Your task to perform on an android device: Show me some nice wallpapers for my phone Image 0: 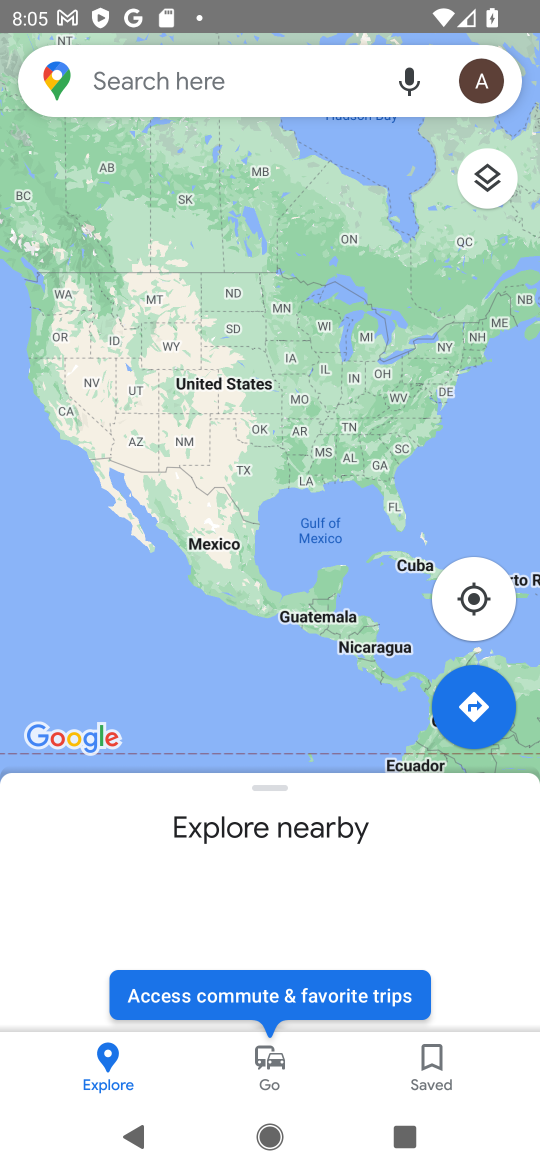
Step 0: press home button
Your task to perform on an android device: Show me some nice wallpapers for my phone Image 1: 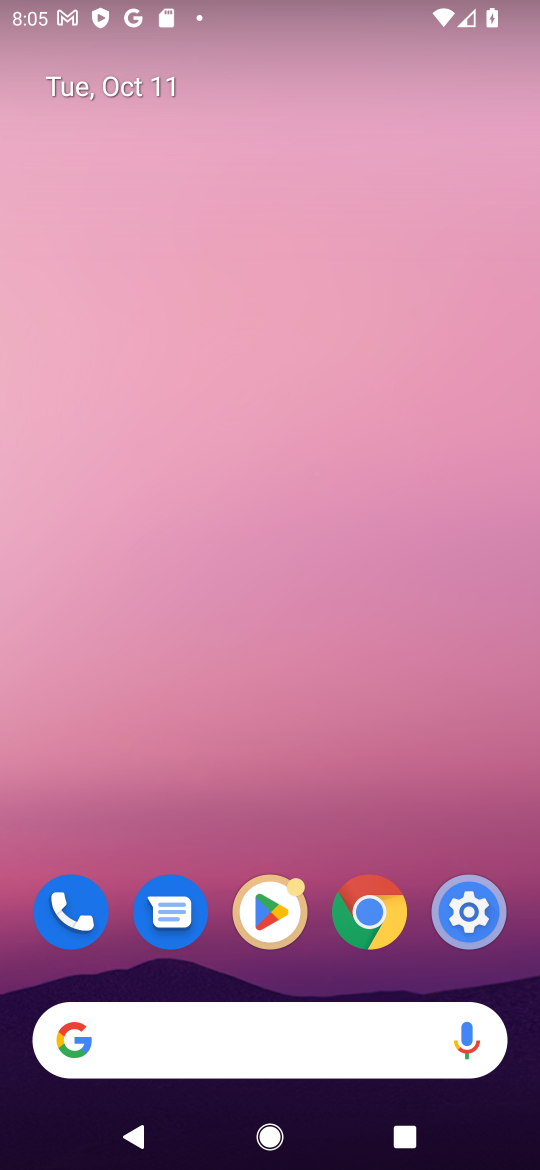
Step 1: click (377, 915)
Your task to perform on an android device: Show me some nice wallpapers for my phone Image 2: 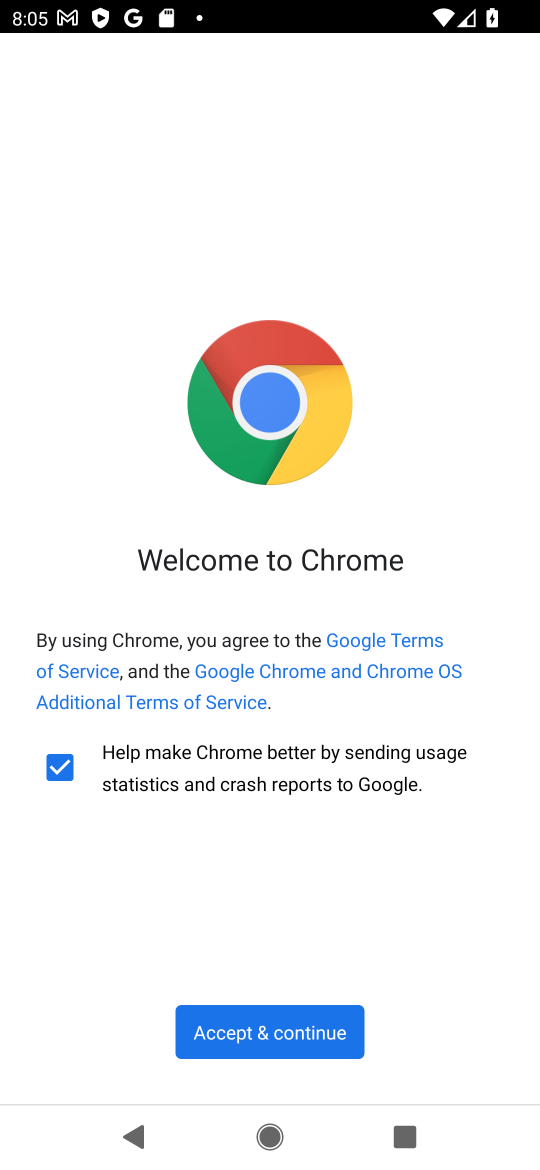
Step 2: click (260, 1036)
Your task to perform on an android device: Show me some nice wallpapers for my phone Image 3: 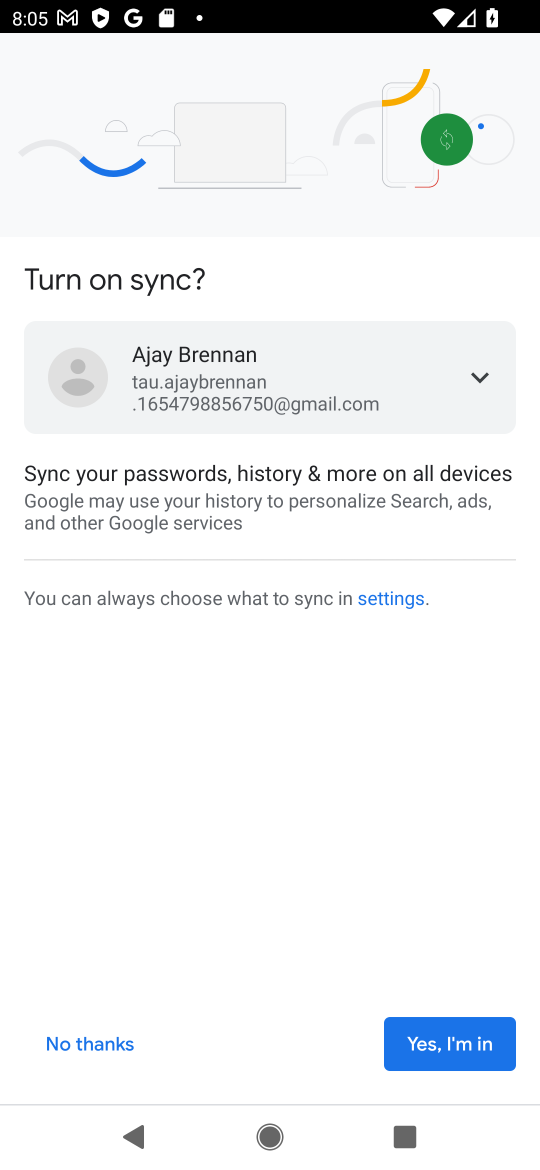
Step 3: click (78, 1040)
Your task to perform on an android device: Show me some nice wallpapers for my phone Image 4: 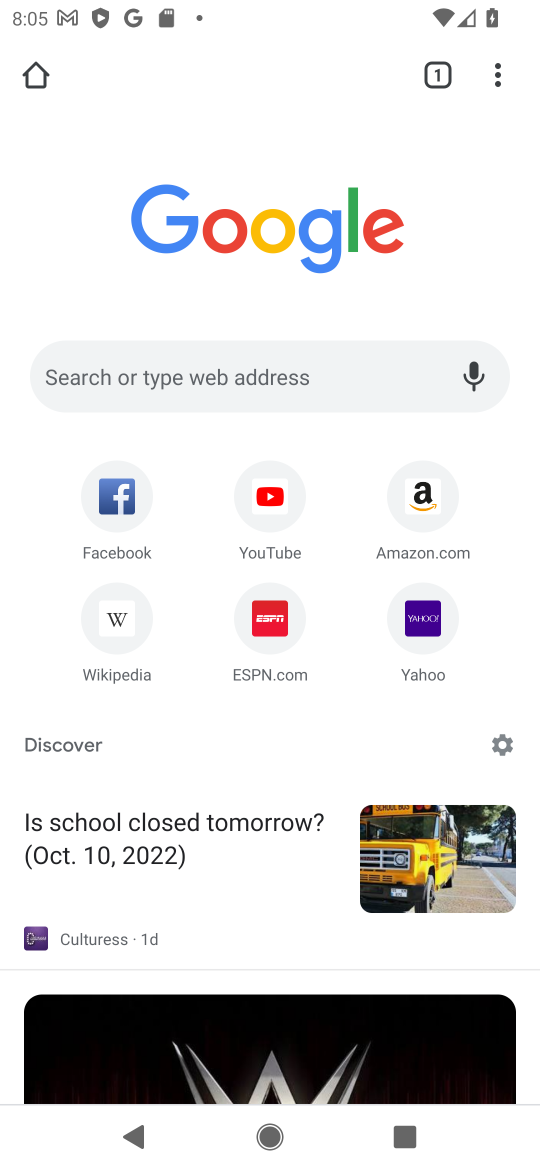
Step 4: click (274, 386)
Your task to perform on an android device: Show me some nice wallpapers for my phone Image 5: 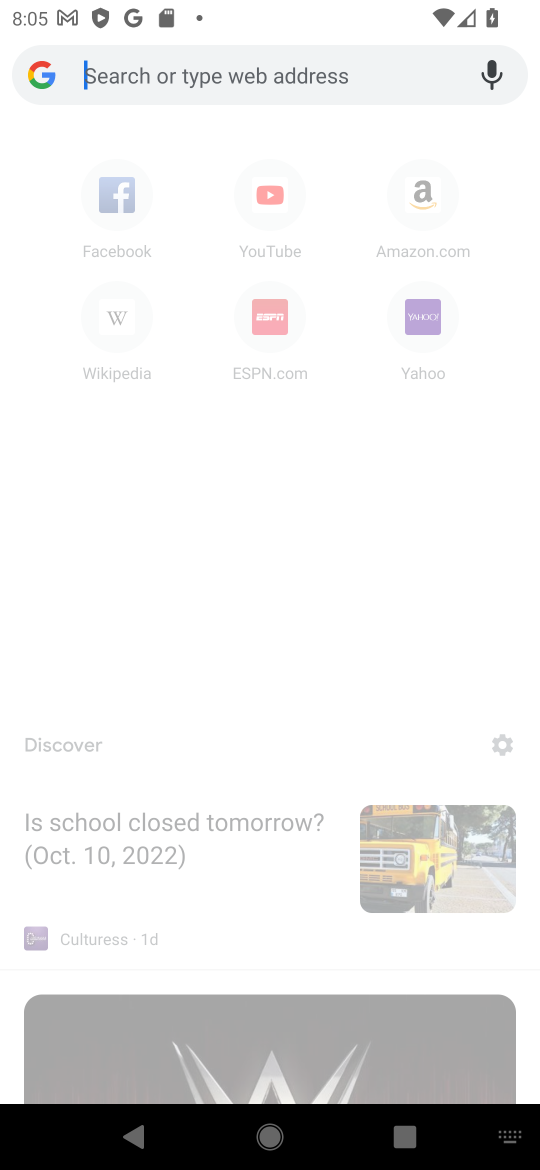
Step 5: type "nice wallpapers for my phone"
Your task to perform on an android device: Show me some nice wallpapers for my phone Image 6: 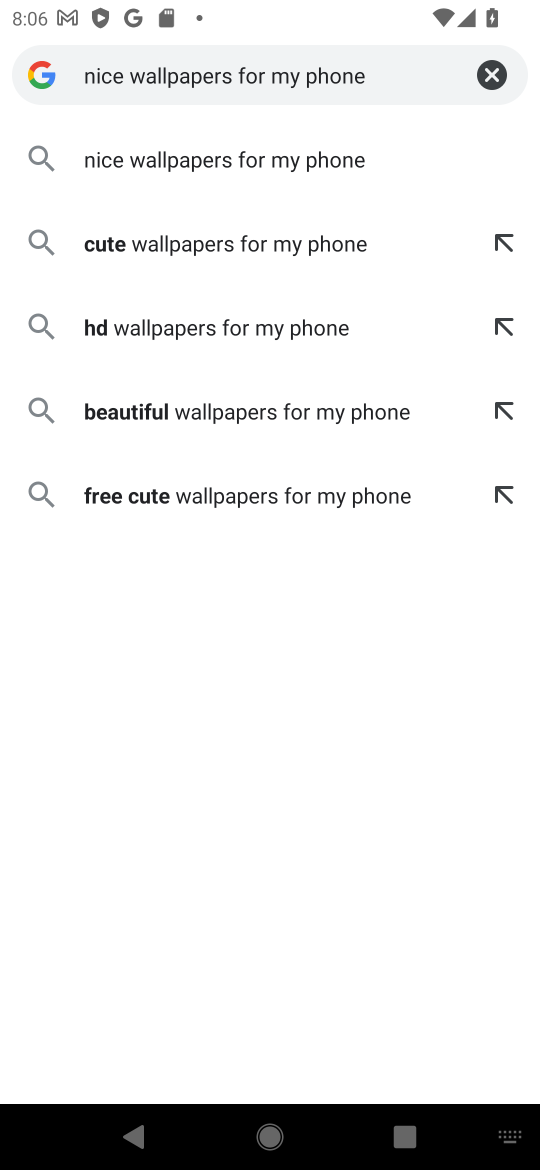
Step 6: click (110, 156)
Your task to perform on an android device: Show me some nice wallpapers for my phone Image 7: 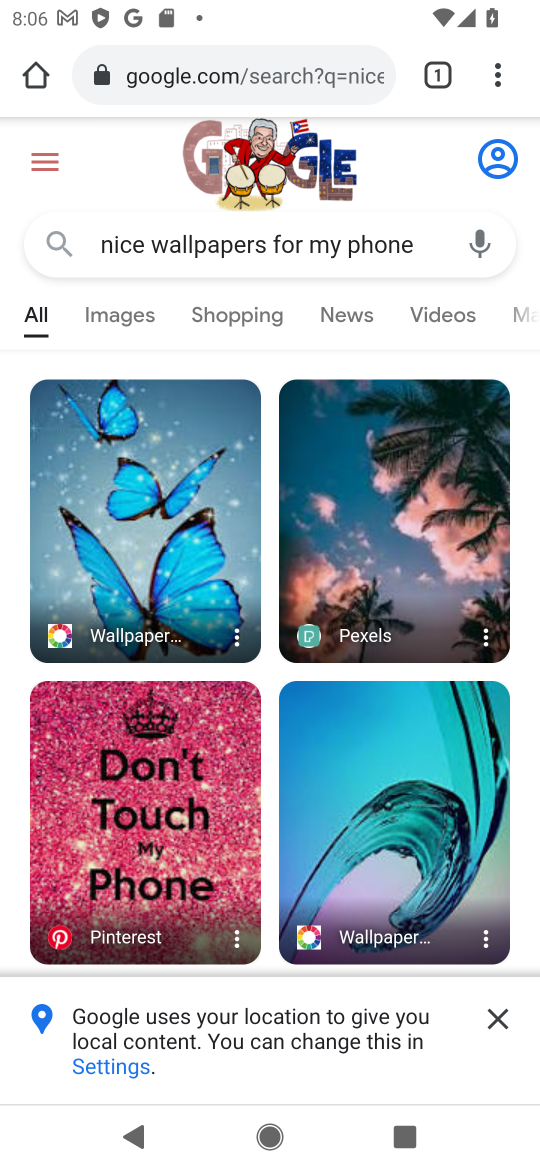
Step 7: task complete